Your task to perform on an android device: Do I have any events tomorrow? Image 0: 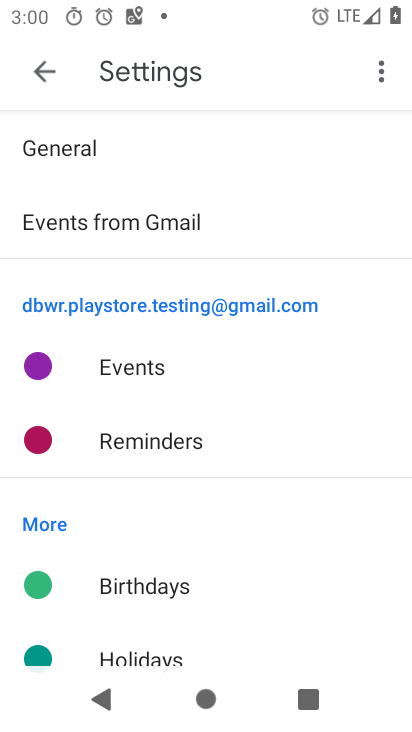
Step 0: press home button
Your task to perform on an android device: Do I have any events tomorrow? Image 1: 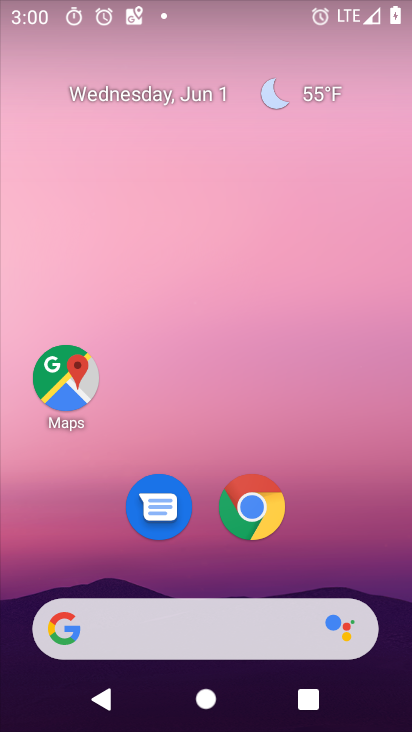
Step 1: drag from (347, 580) to (276, 13)
Your task to perform on an android device: Do I have any events tomorrow? Image 2: 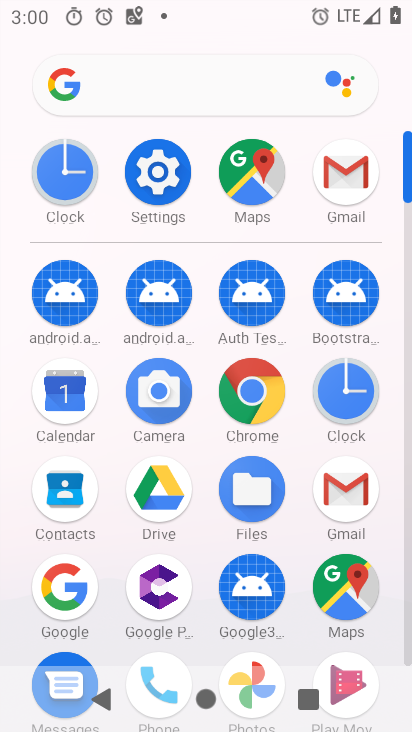
Step 2: click (63, 392)
Your task to perform on an android device: Do I have any events tomorrow? Image 3: 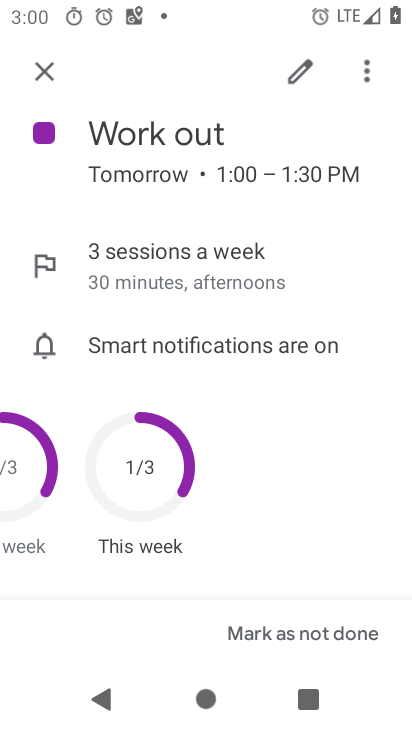
Step 3: click (43, 67)
Your task to perform on an android device: Do I have any events tomorrow? Image 4: 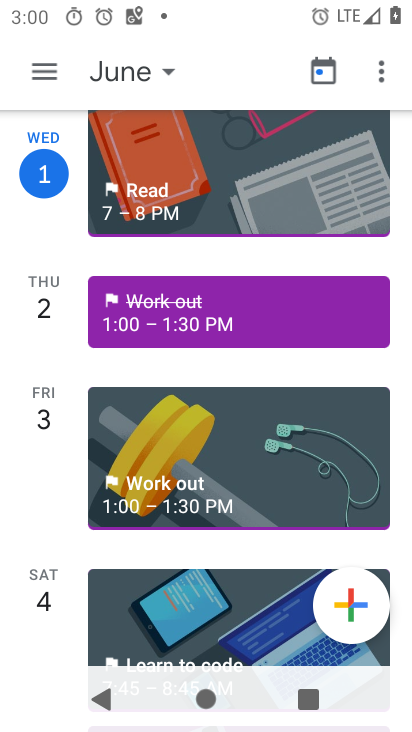
Step 4: click (180, 311)
Your task to perform on an android device: Do I have any events tomorrow? Image 5: 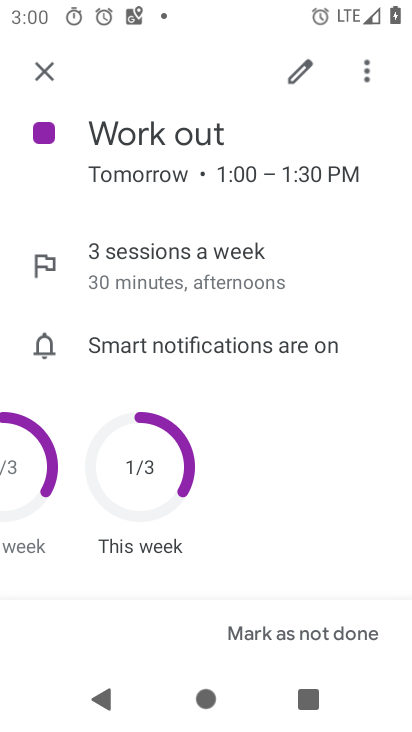
Step 5: task complete